Your task to perform on an android device: Open Yahoo.com Image 0: 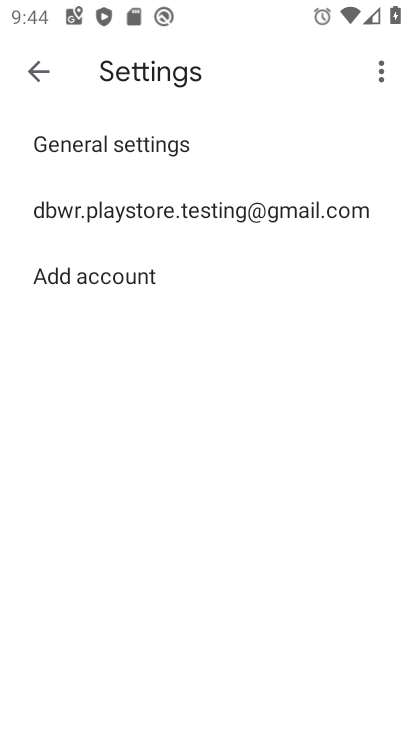
Step 0: press back button
Your task to perform on an android device: Open Yahoo.com Image 1: 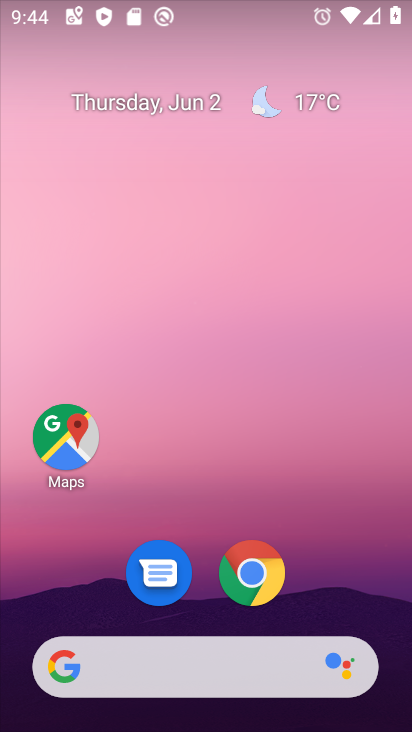
Step 1: click (251, 572)
Your task to perform on an android device: Open Yahoo.com Image 2: 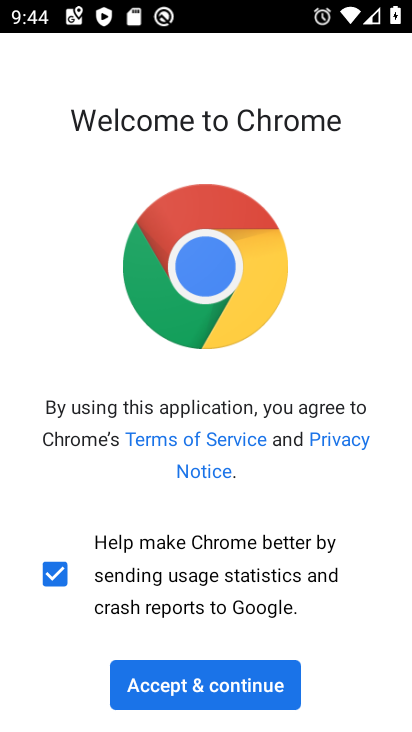
Step 2: click (199, 688)
Your task to perform on an android device: Open Yahoo.com Image 3: 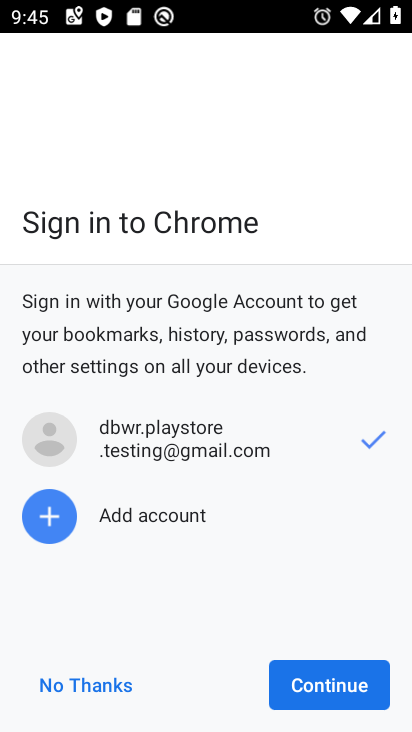
Step 3: click (321, 684)
Your task to perform on an android device: Open Yahoo.com Image 4: 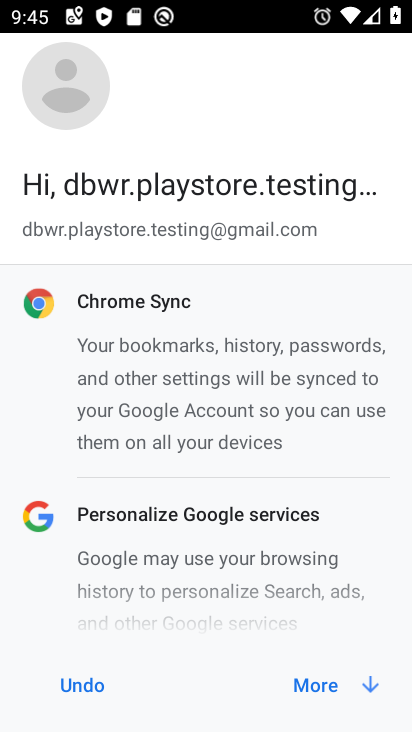
Step 4: click (321, 684)
Your task to perform on an android device: Open Yahoo.com Image 5: 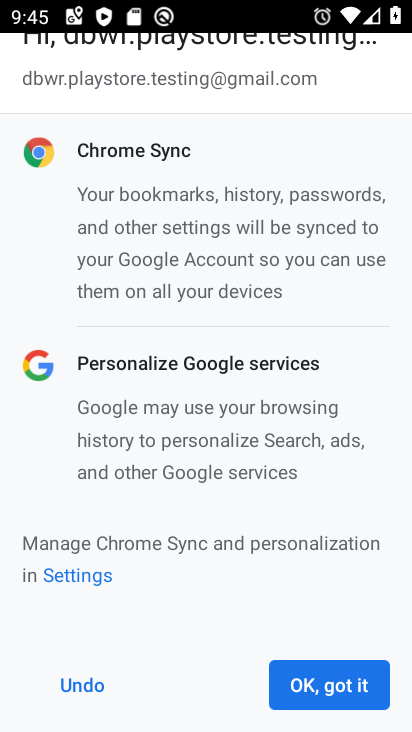
Step 5: click (321, 684)
Your task to perform on an android device: Open Yahoo.com Image 6: 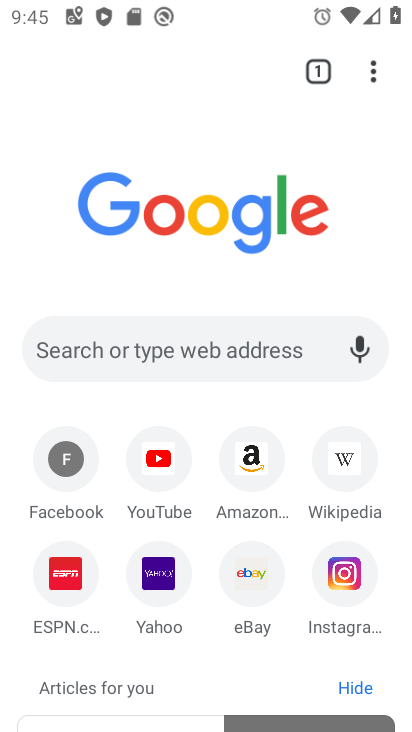
Step 6: click (208, 346)
Your task to perform on an android device: Open Yahoo.com Image 7: 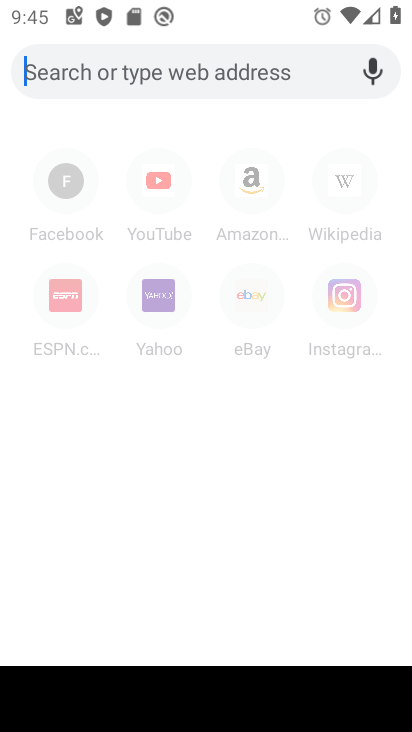
Step 7: type "Yahoo.com"
Your task to perform on an android device: Open Yahoo.com Image 8: 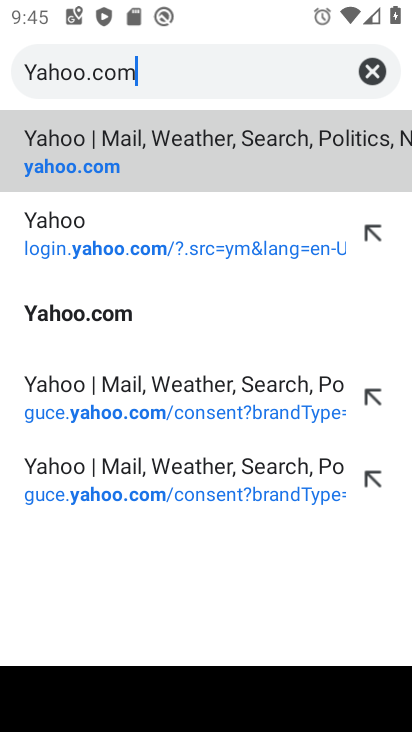
Step 8: click (95, 319)
Your task to perform on an android device: Open Yahoo.com Image 9: 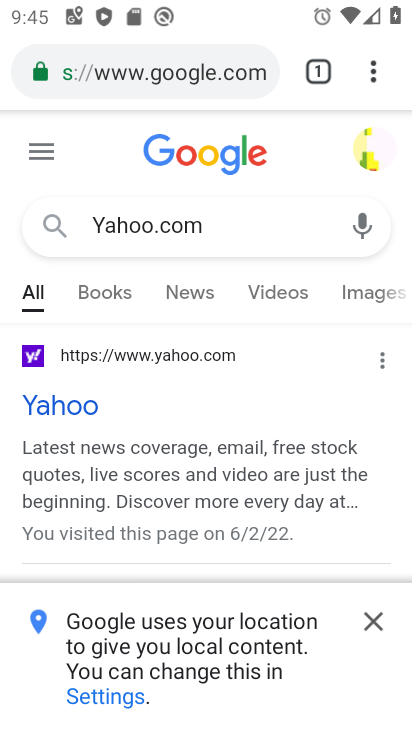
Step 9: click (116, 384)
Your task to perform on an android device: Open Yahoo.com Image 10: 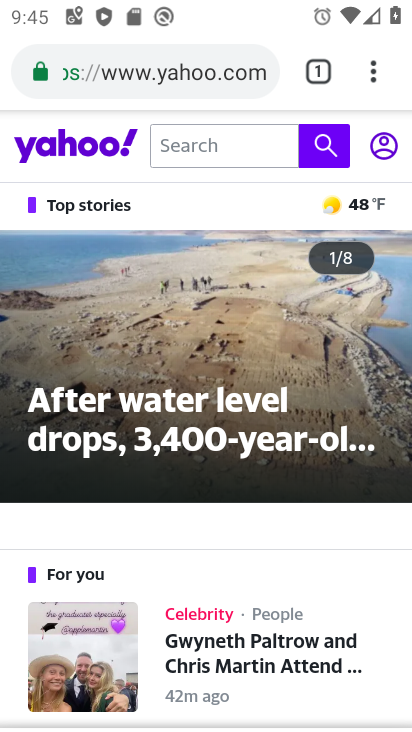
Step 10: task complete